Your task to perform on an android device: Open wifi settings Image 0: 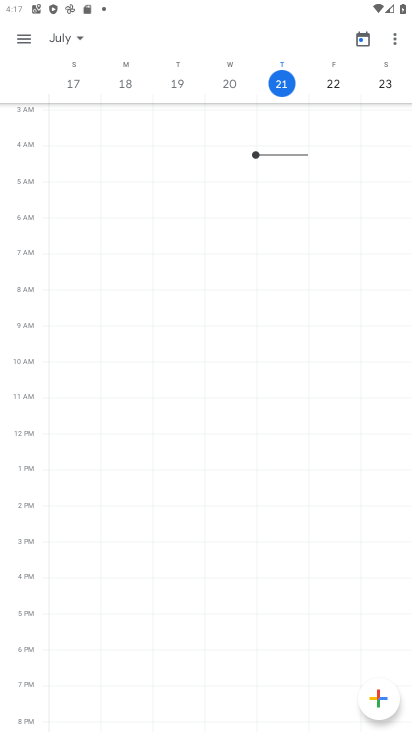
Step 0: press home button
Your task to perform on an android device: Open wifi settings Image 1: 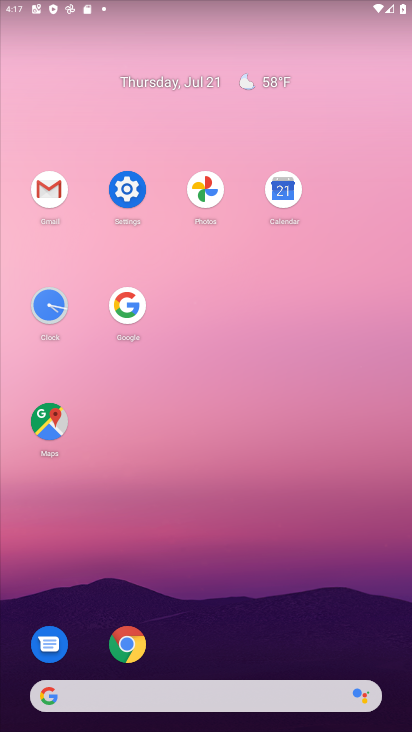
Step 1: click (132, 192)
Your task to perform on an android device: Open wifi settings Image 2: 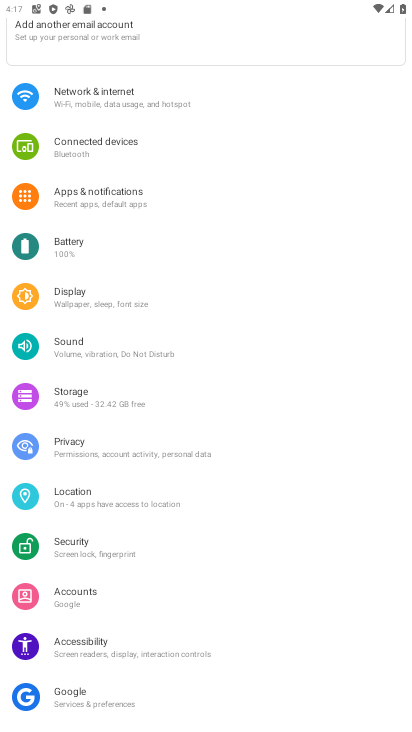
Step 2: click (179, 103)
Your task to perform on an android device: Open wifi settings Image 3: 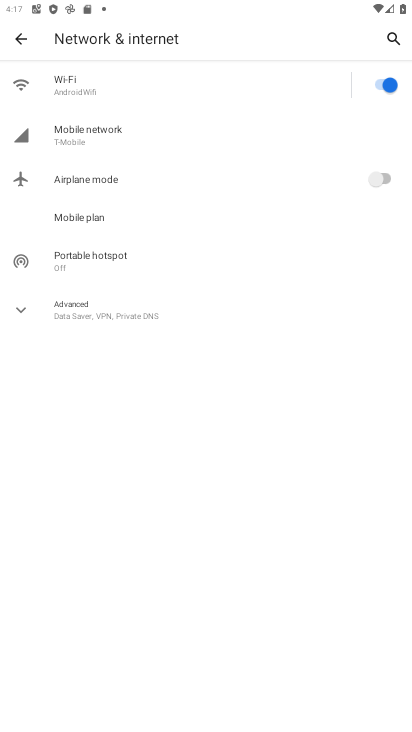
Step 3: click (168, 95)
Your task to perform on an android device: Open wifi settings Image 4: 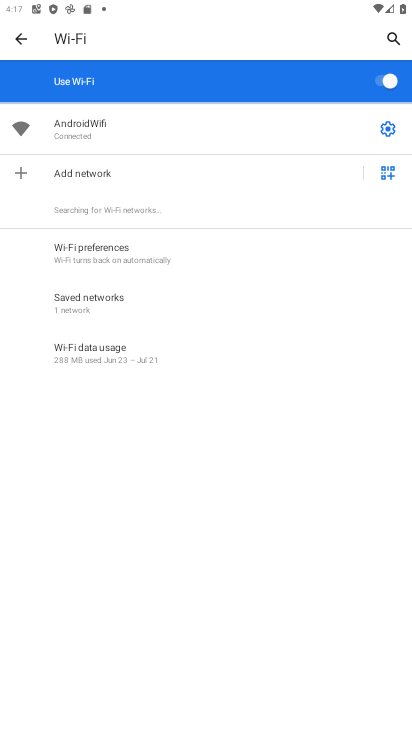
Step 4: click (388, 134)
Your task to perform on an android device: Open wifi settings Image 5: 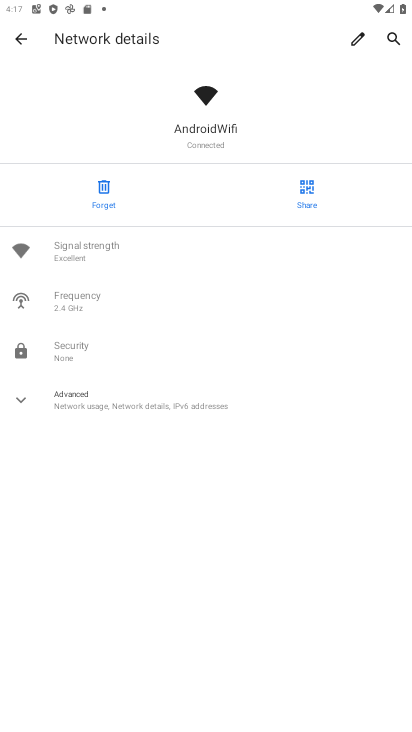
Step 5: task complete